Your task to perform on an android device: turn smart compose on in the gmail app Image 0: 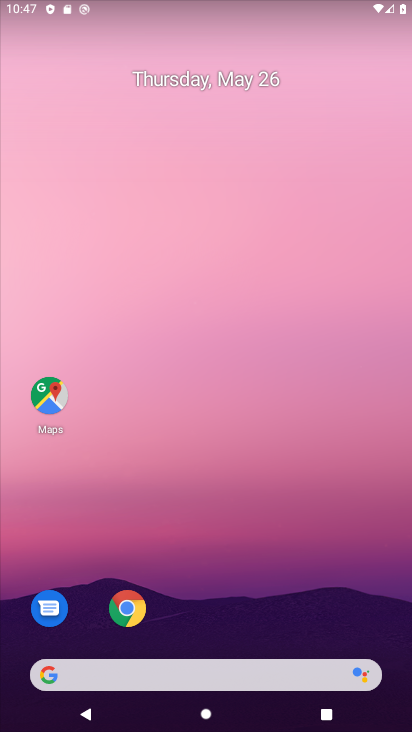
Step 0: drag from (282, 584) to (280, 85)
Your task to perform on an android device: turn smart compose on in the gmail app Image 1: 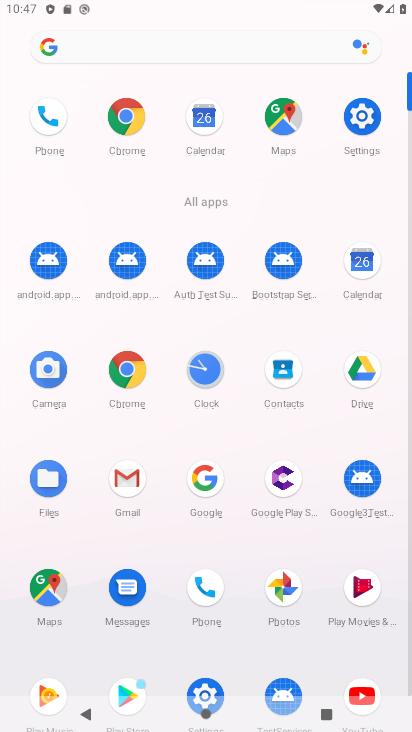
Step 1: click (123, 487)
Your task to perform on an android device: turn smart compose on in the gmail app Image 2: 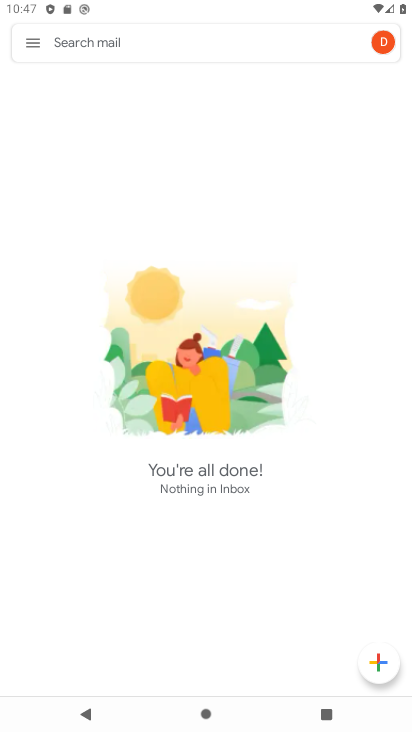
Step 2: click (35, 33)
Your task to perform on an android device: turn smart compose on in the gmail app Image 3: 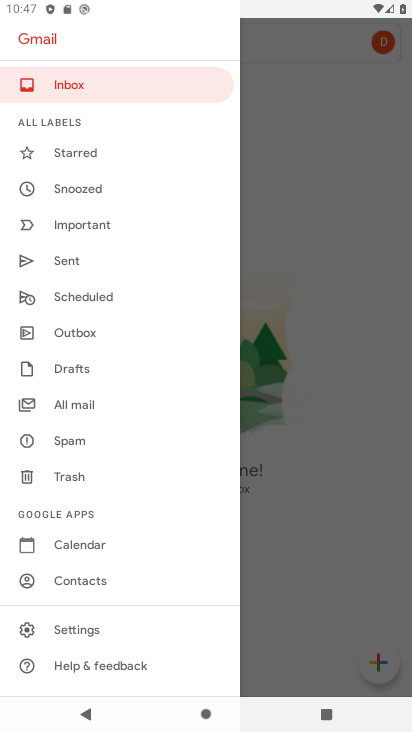
Step 3: click (81, 632)
Your task to perform on an android device: turn smart compose on in the gmail app Image 4: 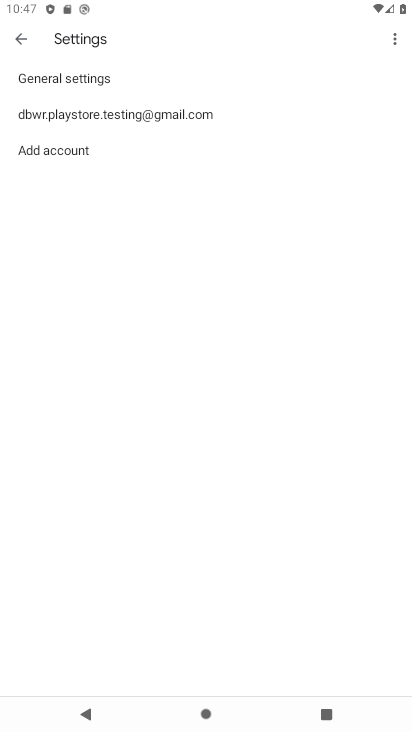
Step 4: click (162, 114)
Your task to perform on an android device: turn smart compose on in the gmail app Image 5: 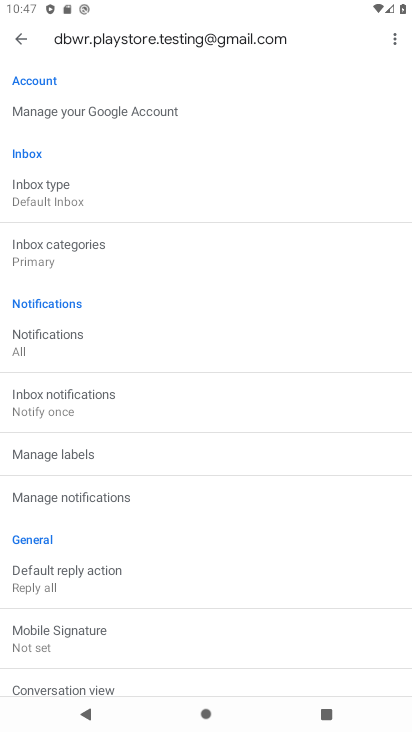
Step 5: drag from (132, 568) to (230, 176)
Your task to perform on an android device: turn smart compose on in the gmail app Image 6: 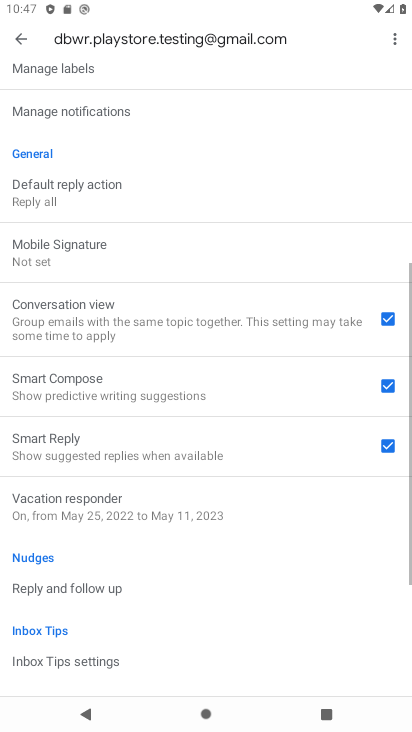
Step 6: click (230, 176)
Your task to perform on an android device: turn smart compose on in the gmail app Image 7: 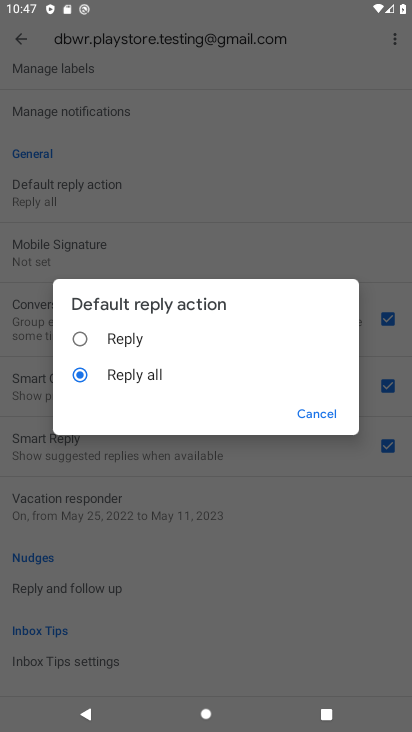
Step 7: click (313, 406)
Your task to perform on an android device: turn smart compose on in the gmail app Image 8: 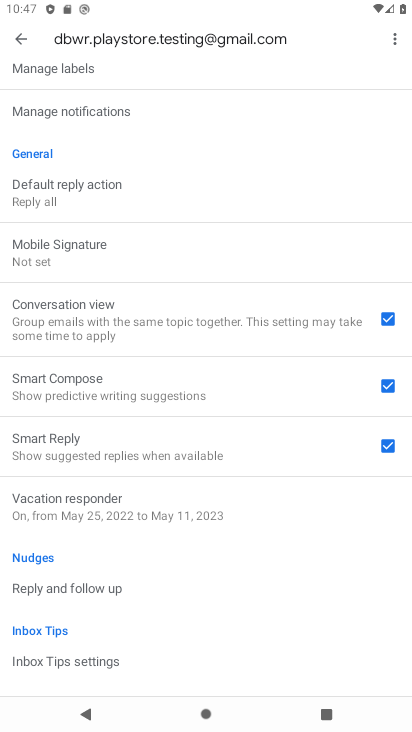
Step 8: task complete